Your task to perform on an android device: Open maps Image 0: 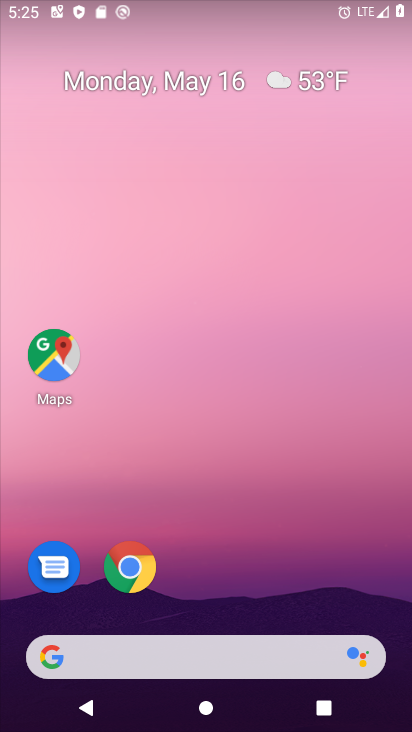
Step 0: drag from (206, 564) to (195, 26)
Your task to perform on an android device: Open maps Image 1: 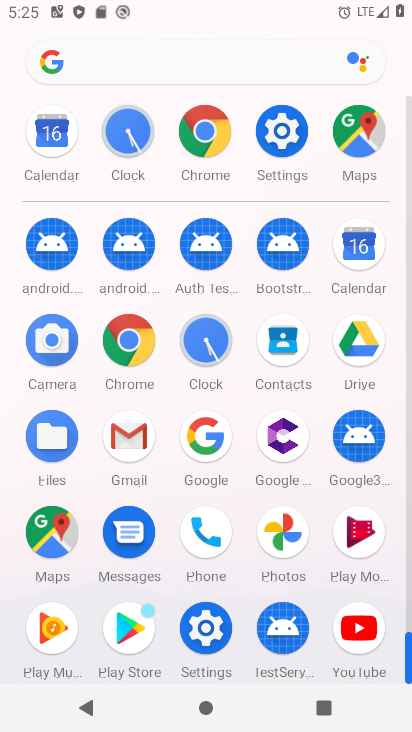
Step 1: click (61, 532)
Your task to perform on an android device: Open maps Image 2: 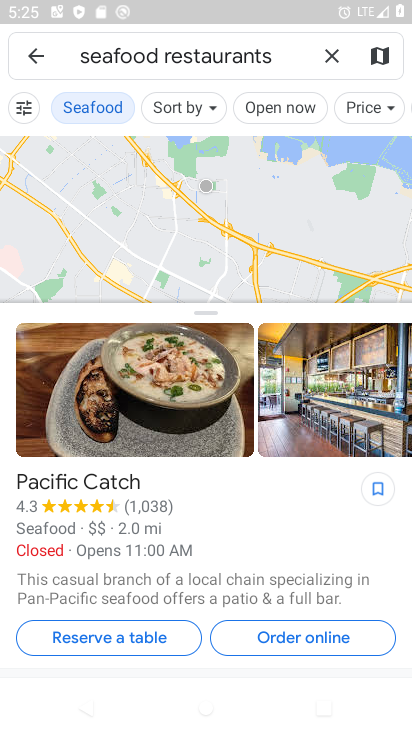
Step 2: task complete